Your task to perform on an android device: Search for dell xps on ebay.com, select the first entry, and add it to the cart. Image 0: 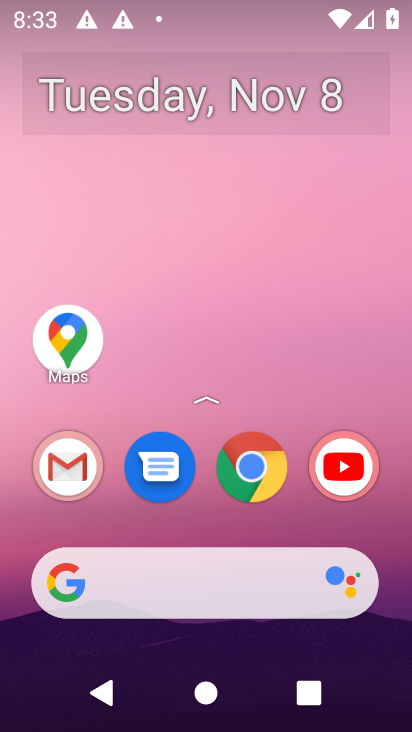
Step 0: click (137, 598)
Your task to perform on an android device: Search for dell xps on ebay.com, select the first entry, and add it to the cart. Image 1: 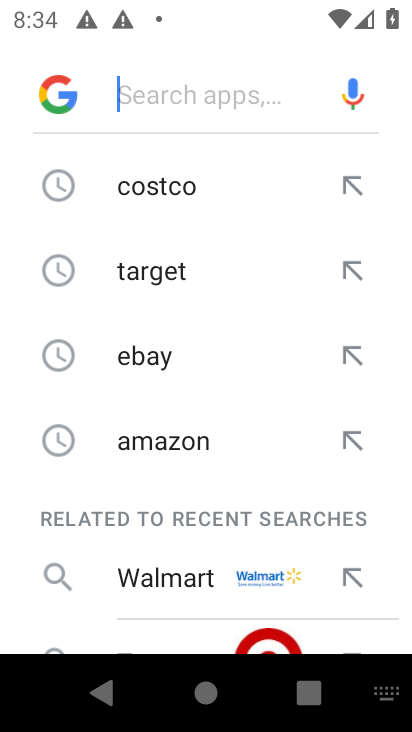
Step 1: click (276, 367)
Your task to perform on an android device: Search for dell xps on ebay.com, select the first entry, and add it to the cart. Image 2: 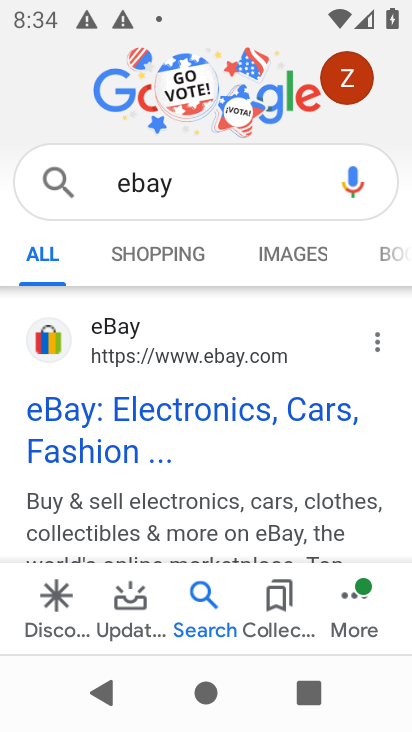
Step 2: click (85, 435)
Your task to perform on an android device: Search for dell xps on ebay.com, select the first entry, and add it to the cart. Image 3: 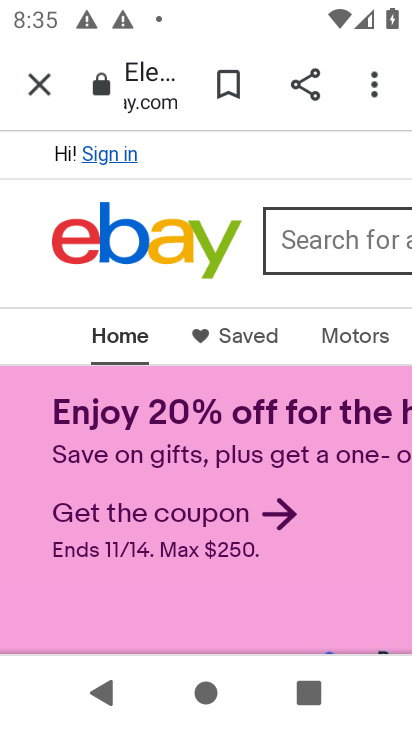
Step 3: task complete